Your task to perform on an android device: turn off picture-in-picture Image 0: 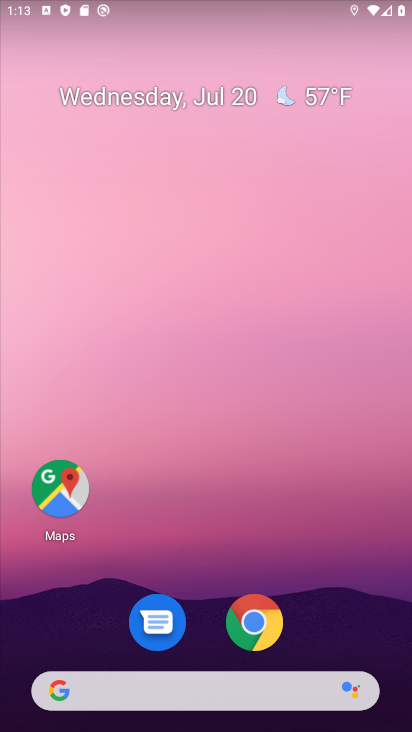
Step 0: click (258, 601)
Your task to perform on an android device: turn off picture-in-picture Image 1: 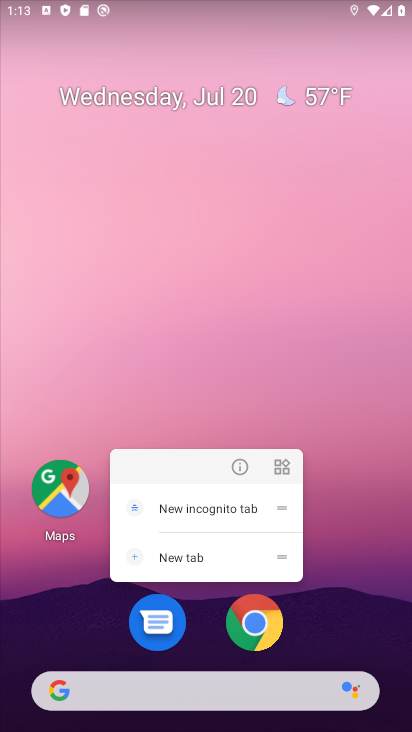
Step 1: click (232, 463)
Your task to perform on an android device: turn off picture-in-picture Image 2: 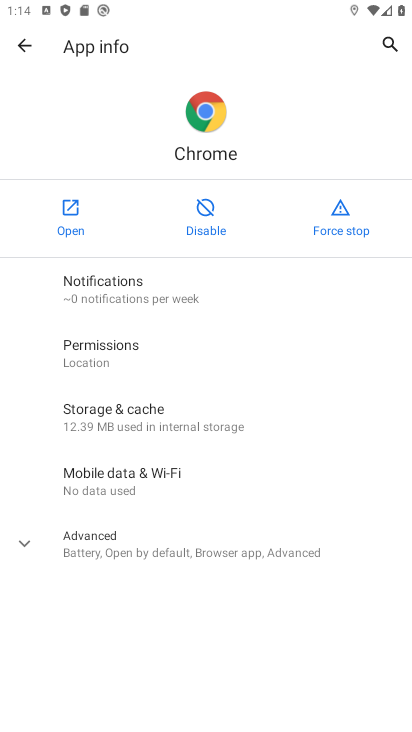
Step 2: click (203, 550)
Your task to perform on an android device: turn off picture-in-picture Image 3: 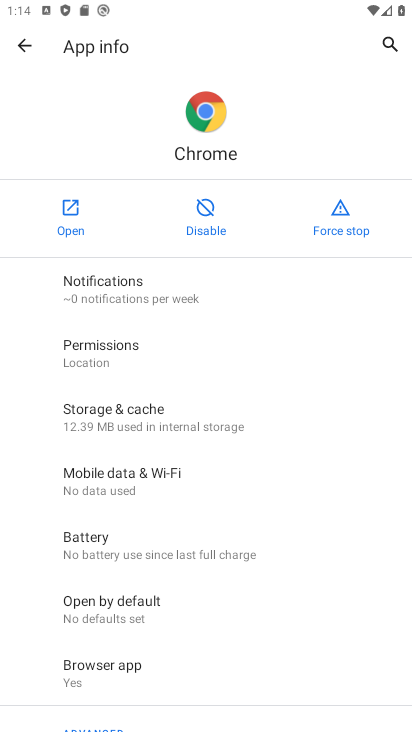
Step 3: drag from (225, 622) to (221, 306)
Your task to perform on an android device: turn off picture-in-picture Image 4: 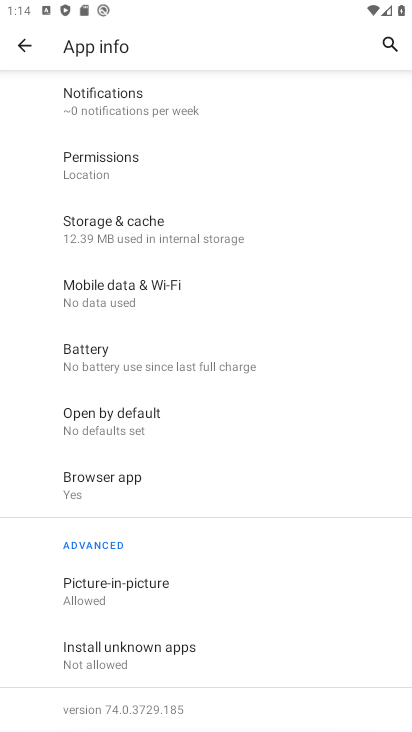
Step 4: click (200, 594)
Your task to perform on an android device: turn off picture-in-picture Image 5: 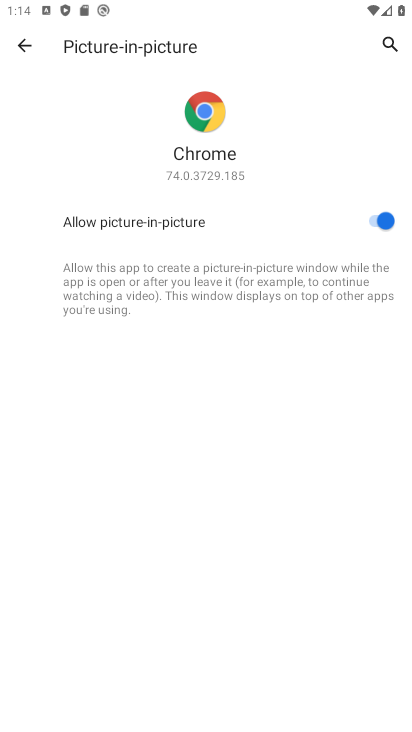
Step 5: click (371, 221)
Your task to perform on an android device: turn off picture-in-picture Image 6: 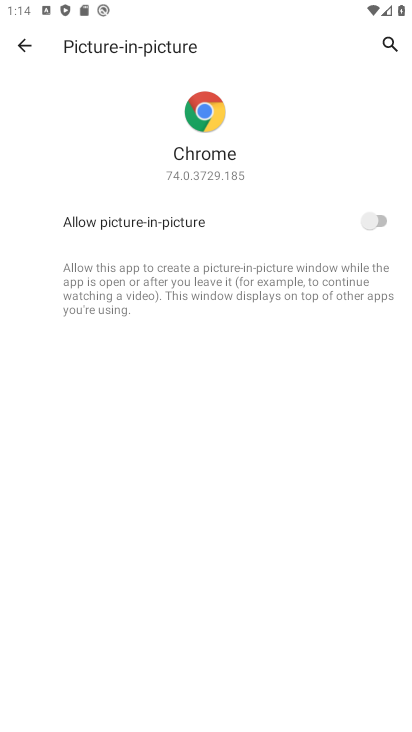
Step 6: task complete